Your task to perform on an android device: turn on showing notifications on the lock screen Image 0: 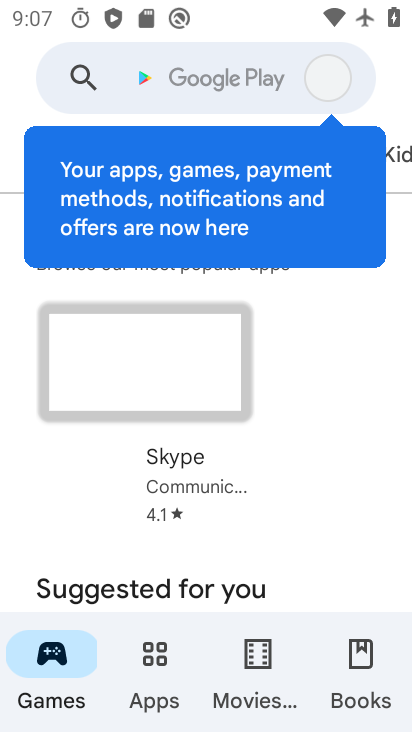
Step 0: press home button
Your task to perform on an android device: turn on showing notifications on the lock screen Image 1: 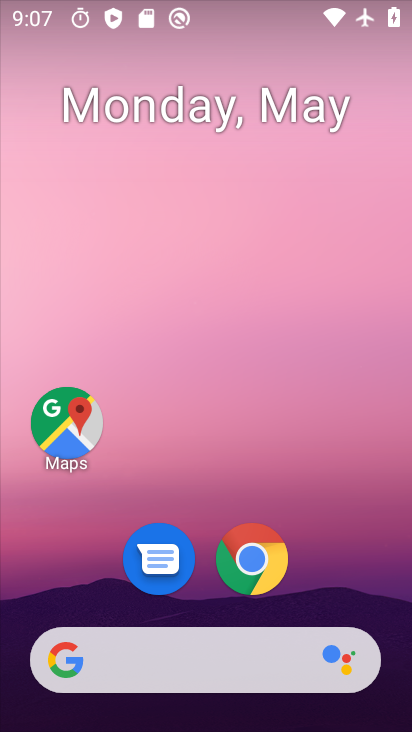
Step 1: drag from (312, 597) to (333, 159)
Your task to perform on an android device: turn on showing notifications on the lock screen Image 2: 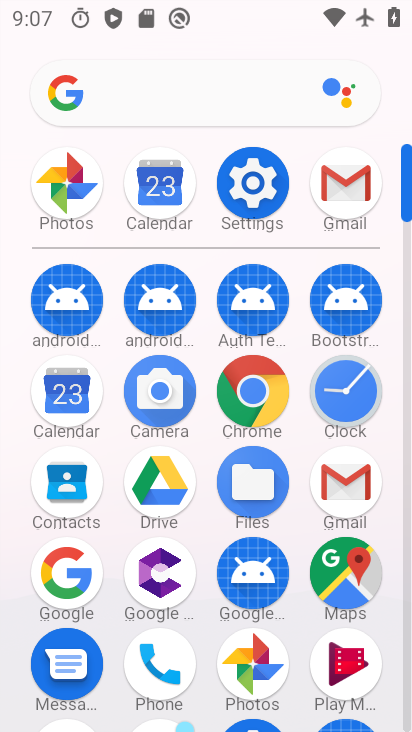
Step 2: click (259, 167)
Your task to perform on an android device: turn on showing notifications on the lock screen Image 3: 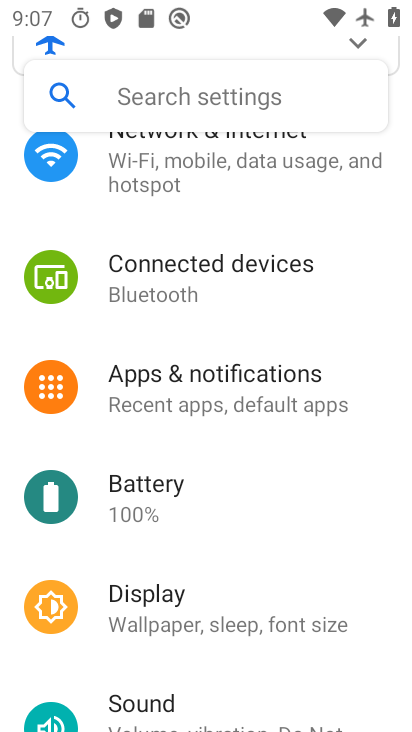
Step 3: click (245, 392)
Your task to perform on an android device: turn on showing notifications on the lock screen Image 4: 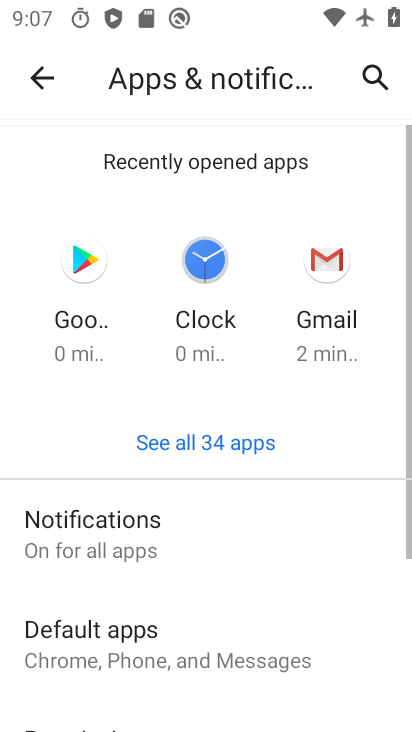
Step 4: click (160, 545)
Your task to perform on an android device: turn on showing notifications on the lock screen Image 5: 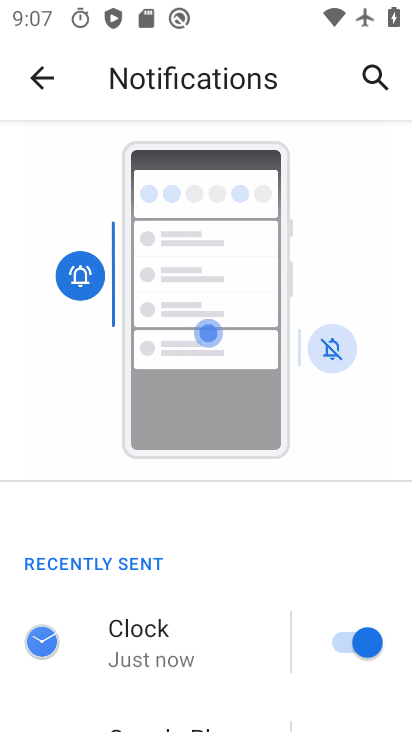
Step 5: drag from (153, 635) to (205, 231)
Your task to perform on an android device: turn on showing notifications on the lock screen Image 6: 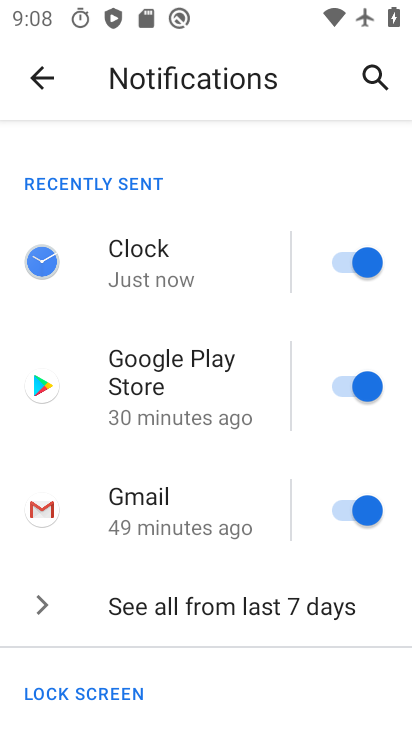
Step 6: drag from (190, 687) to (188, 255)
Your task to perform on an android device: turn on showing notifications on the lock screen Image 7: 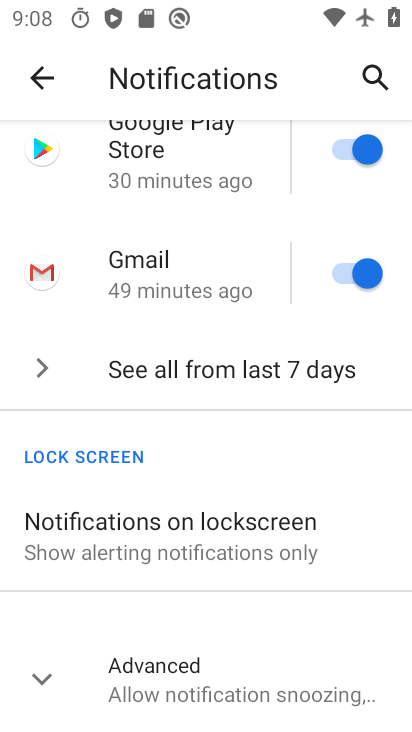
Step 7: click (169, 552)
Your task to perform on an android device: turn on showing notifications on the lock screen Image 8: 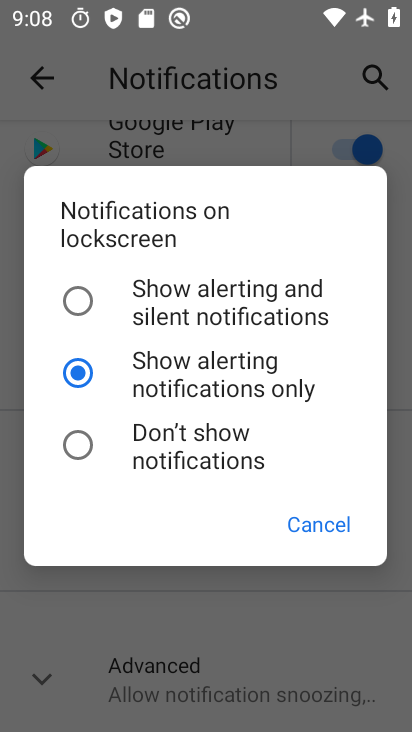
Step 8: click (194, 295)
Your task to perform on an android device: turn on showing notifications on the lock screen Image 9: 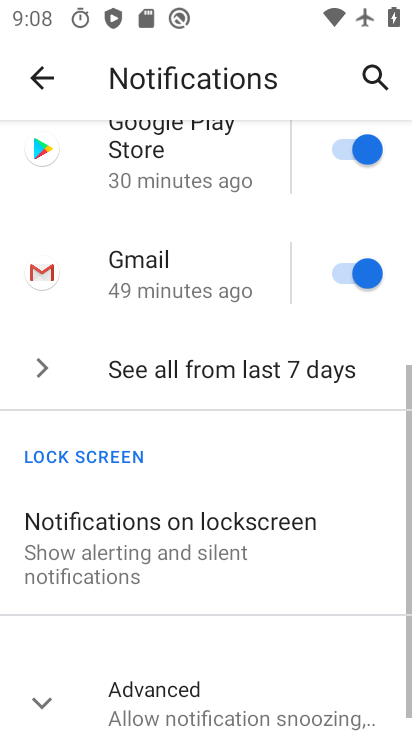
Step 9: task complete